Your task to perform on an android device: Go to Google Image 0: 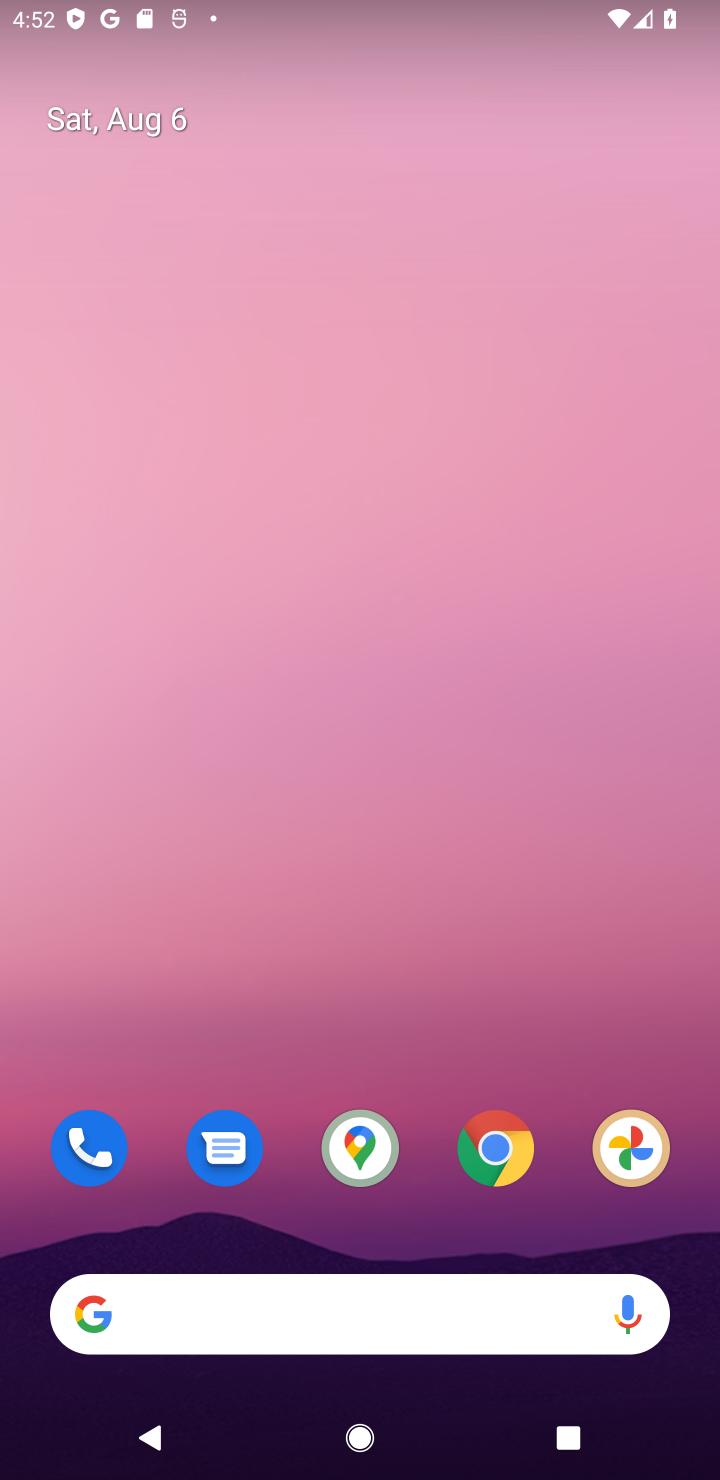
Step 0: drag from (399, 1167) to (249, 64)
Your task to perform on an android device: Go to Google Image 1: 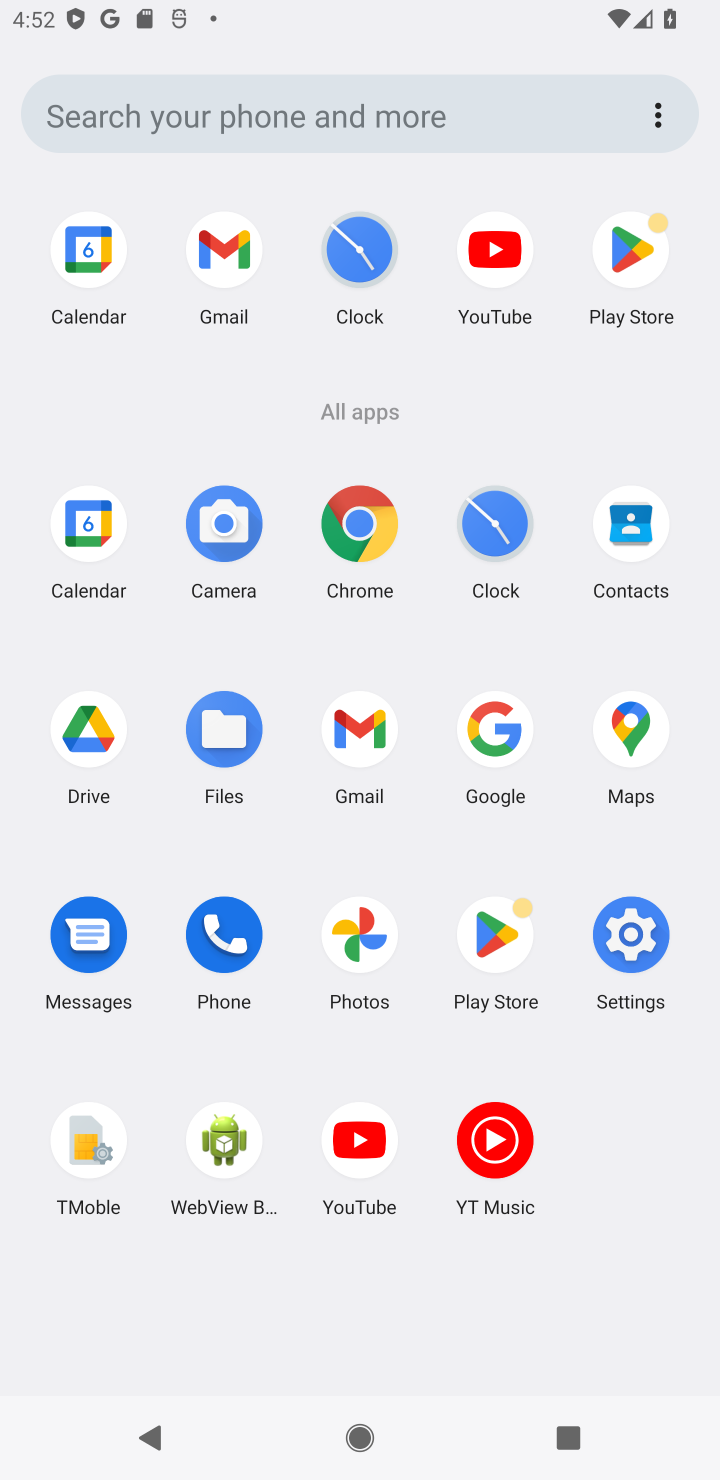
Step 1: click (514, 724)
Your task to perform on an android device: Go to Google Image 2: 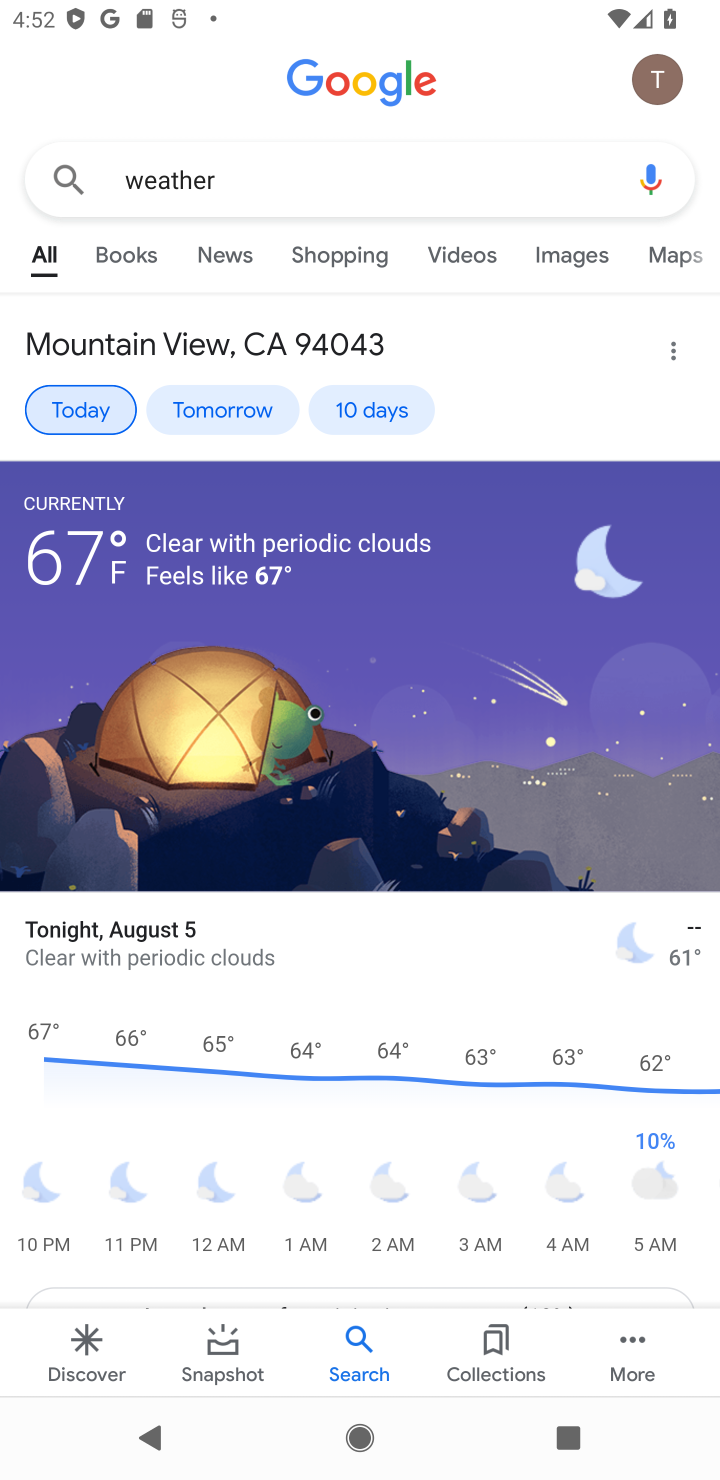
Step 2: task complete